Your task to perform on an android device: turn smart compose on in the gmail app Image 0: 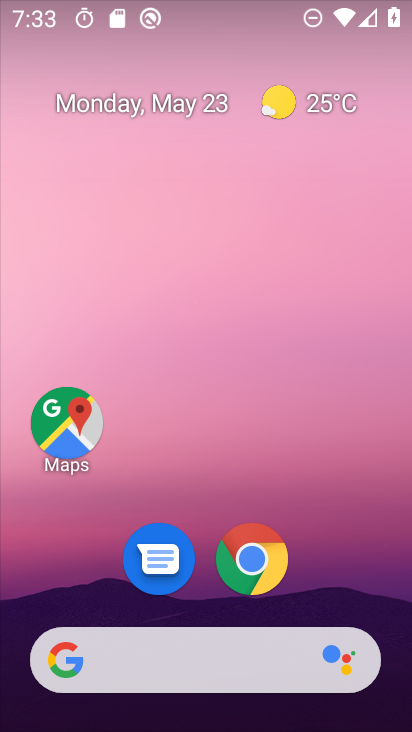
Step 0: drag from (382, 614) to (244, 4)
Your task to perform on an android device: turn smart compose on in the gmail app Image 1: 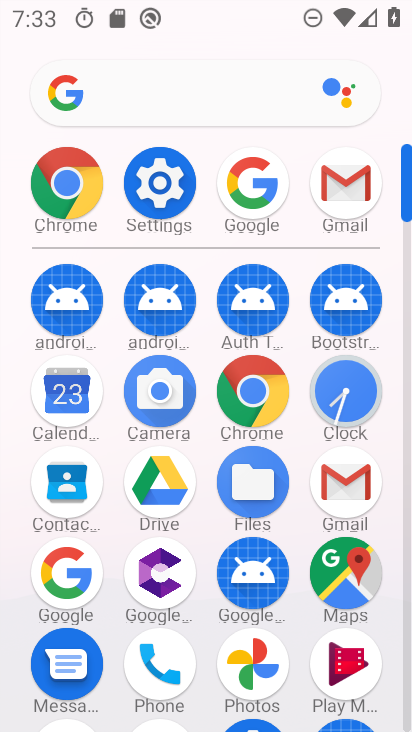
Step 1: click (327, 472)
Your task to perform on an android device: turn smart compose on in the gmail app Image 2: 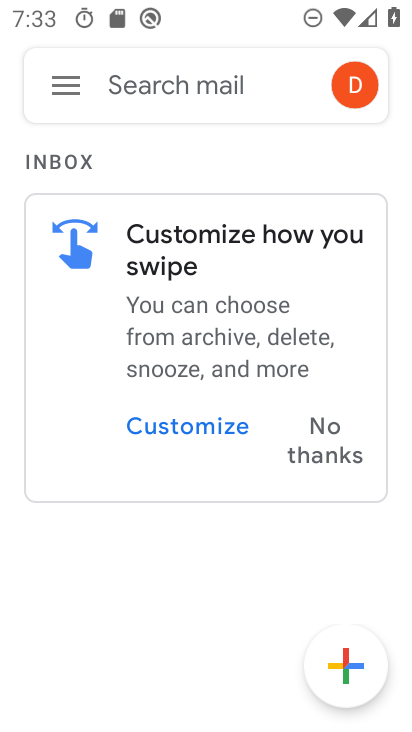
Step 2: click (49, 90)
Your task to perform on an android device: turn smart compose on in the gmail app Image 3: 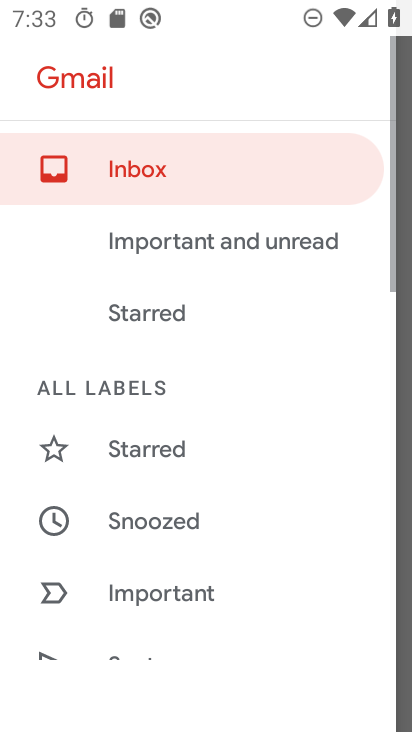
Step 3: drag from (133, 609) to (190, 28)
Your task to perform on an android device: turn smart compose on in the gmail app Image 4: 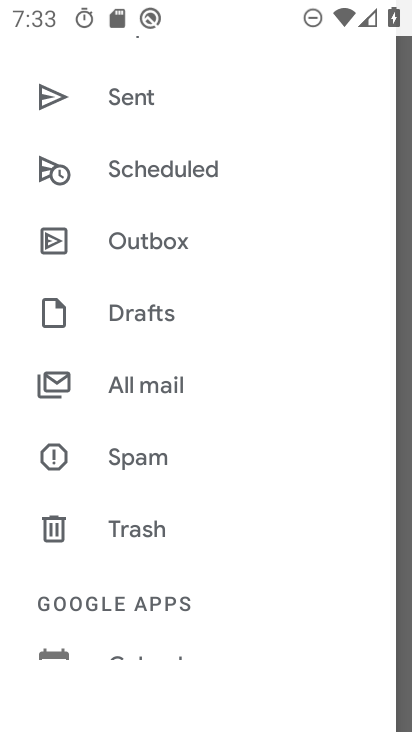
Step 4: drag from (146, 612) to (205, 34)
Your task to perform on an android device: turn smart compose on in the gmail app Image 5: 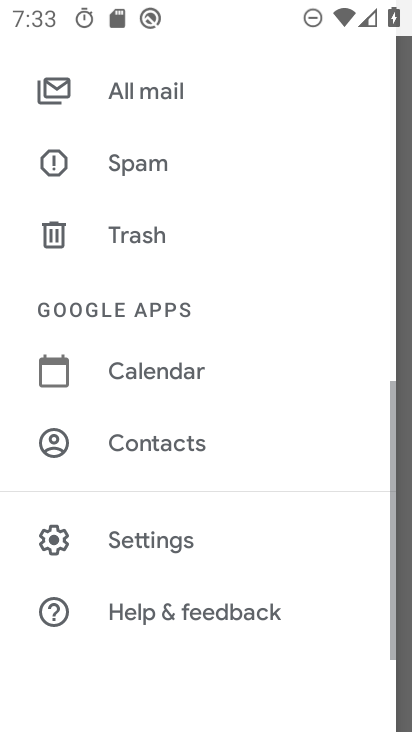
Step 5: click (144, 542)
Your task to perform on an android device: turn smart compose on in the gmail app Image 6: 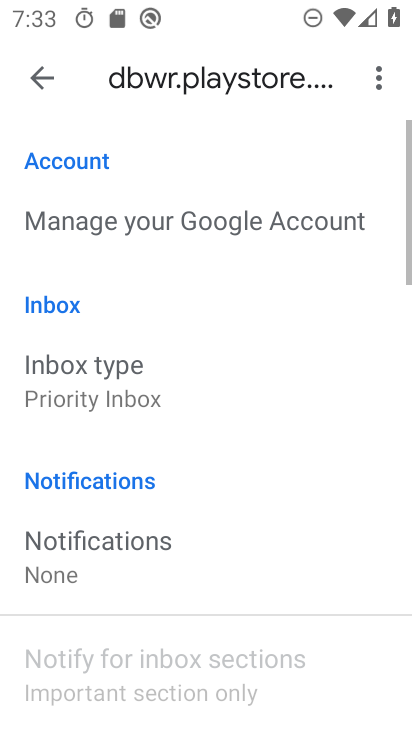
Step 6: task complete